Your task to perform on an android device: turn on improve location accuracy Image 0: 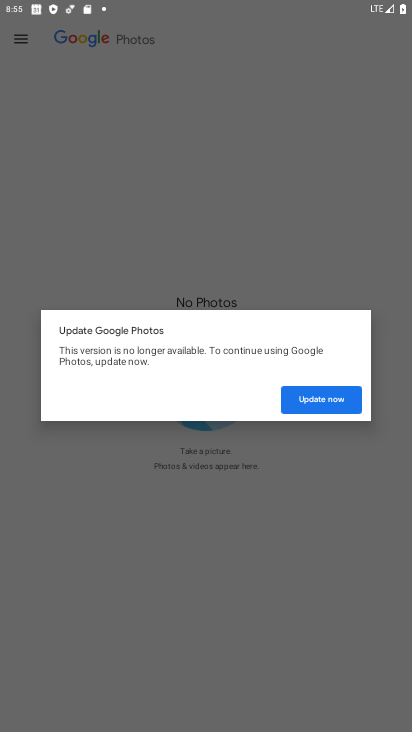
Step 0: press home button
Your task to perform on an android device: turn on improve location accuracy Image 1: 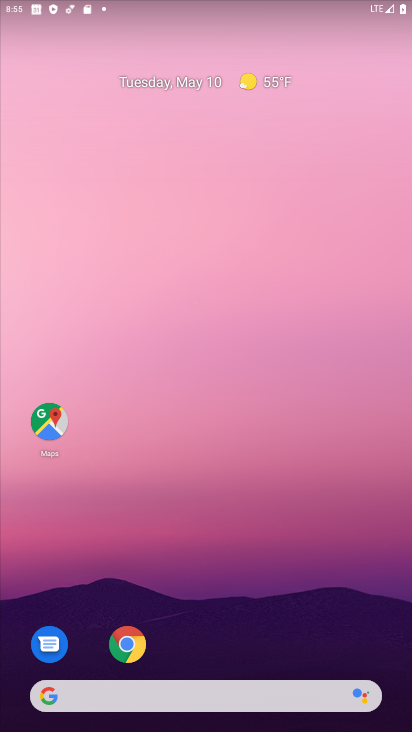
Step 1: drag from (268, 663) to (240, 120)
Your task to perform on an android device: turn on improve location accuracy Image 2: 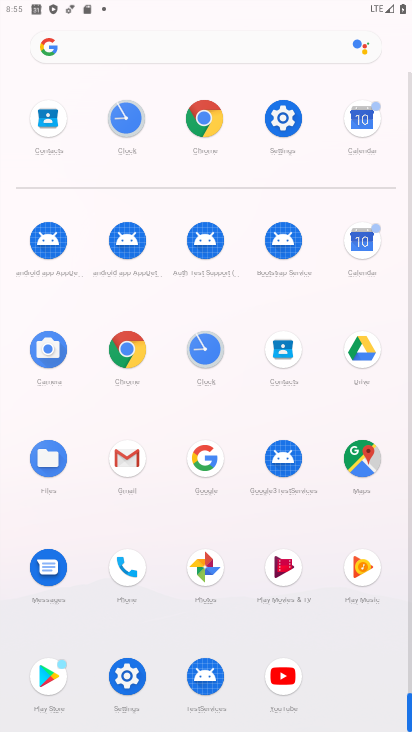
Step 2: click (279, 142)
Your task to perform on an android device: turn on improve location accuracy Image 3: 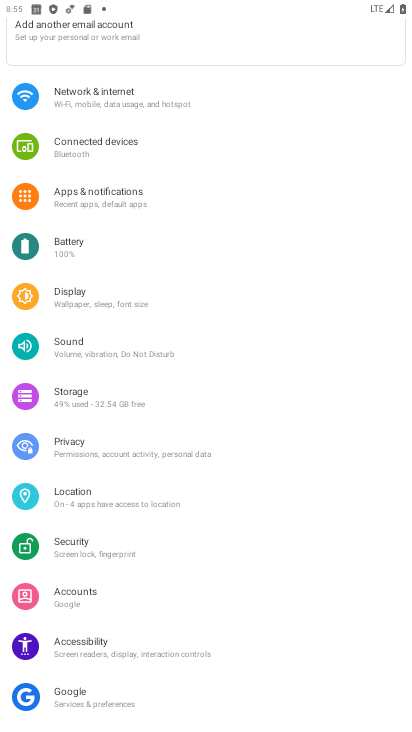
Step 3: click (162, 497)
Your task to perform on an android device: turn on improve location accuracy Image 4: 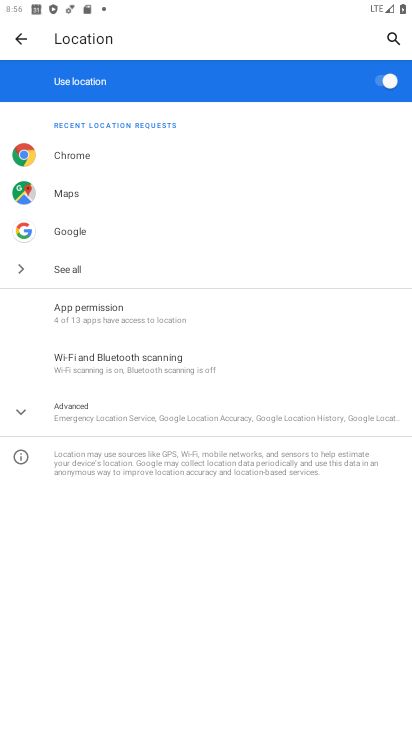
Step 4: click (134, 412)
Your task to perform on an android device: turn on improve location accuracy Image 5: 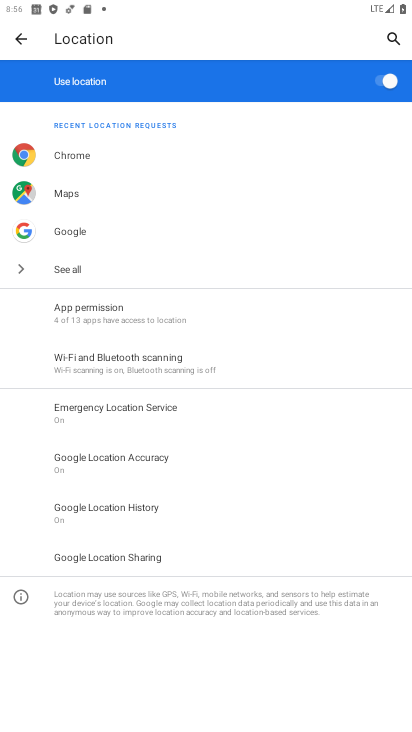
Step 5: click (165, 466)
Your task to perform on an android device: turn on improve location accuracy Image 6: 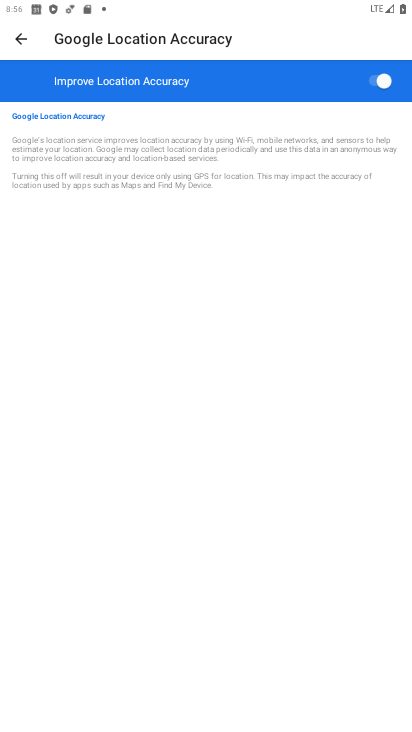
Step 6: task complete